Your task to perform on an android device: Check the news Image 0: 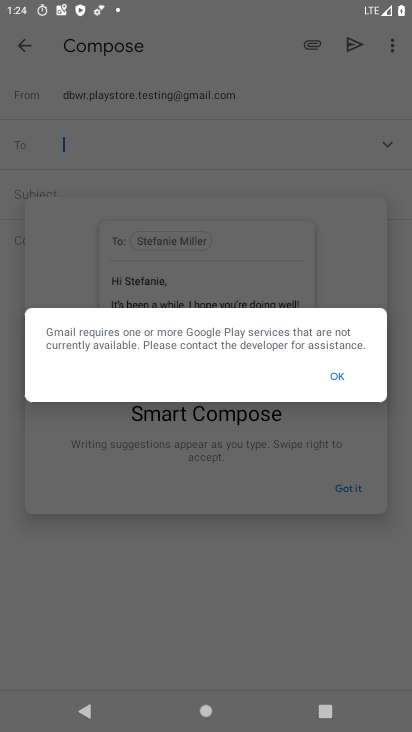
Step 0: press home button
Your task to perform on an android device: Check the news Image 1: 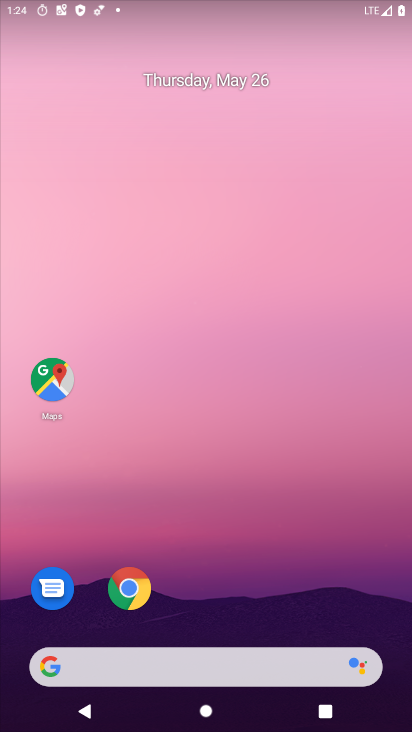
Step 1: task complete